Your task to perform on an android device: find photos in the google photos app Image 0: 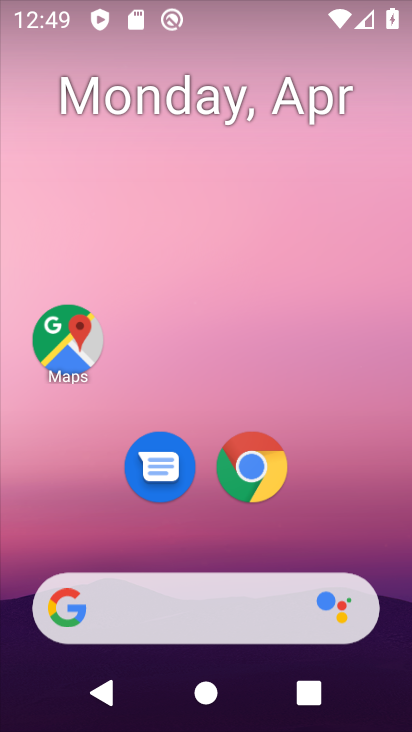
Step 0: drag from (203, 479) to (253, 114)
Your task to perform on an android device: find photos in the google photos app Image 1: 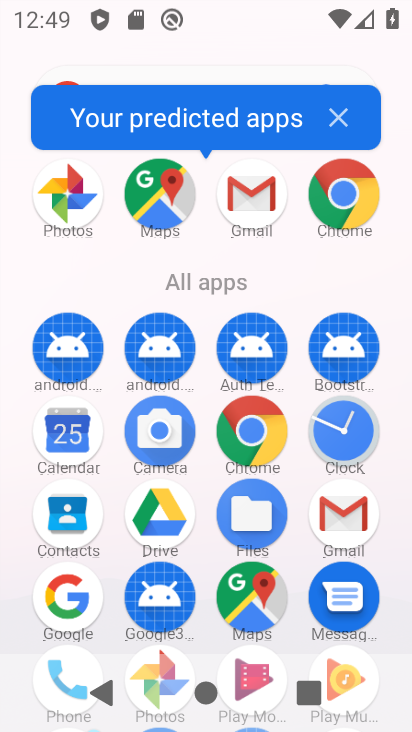
Step 1: click (64, 191)
Your task to perform on an android device: find photos in the google photos app Image 2: 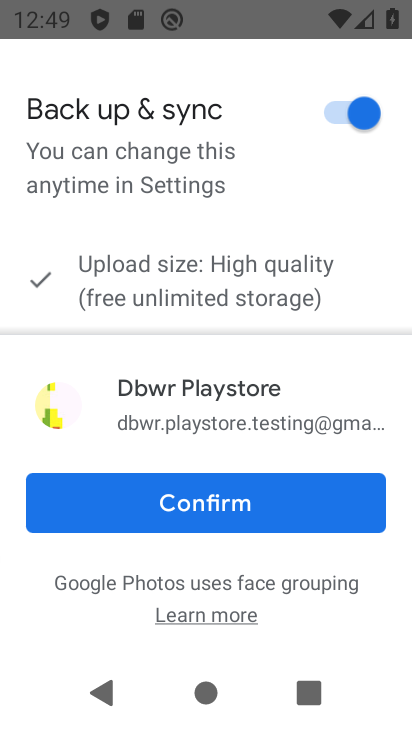
Step 2: click (213, 497)
Your task to perform on an android device: find photos in the google photos app Image 3: 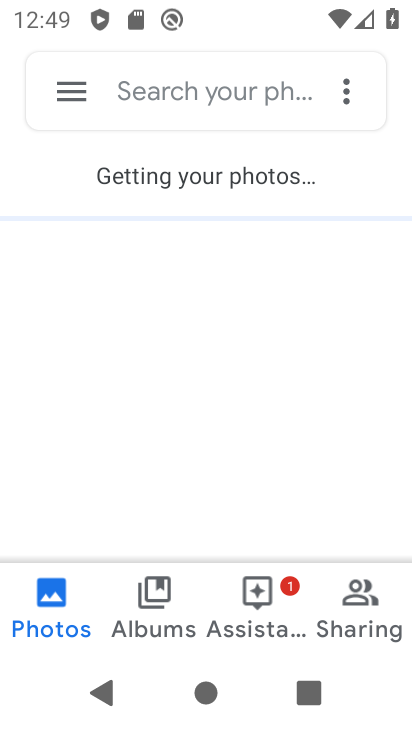
Step 3: click (180, 100)
Your task to perform on an android device: find photos in the google photos app Image 4: 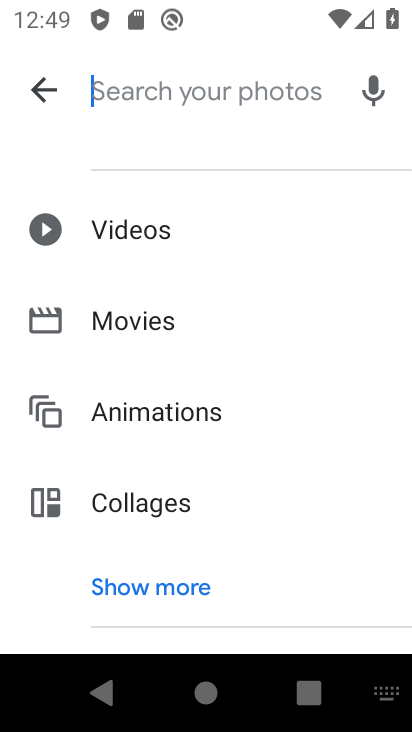
Step 4: click (133, 506)
Your task to perform on an android device: find photos in the google photos app Image 5: 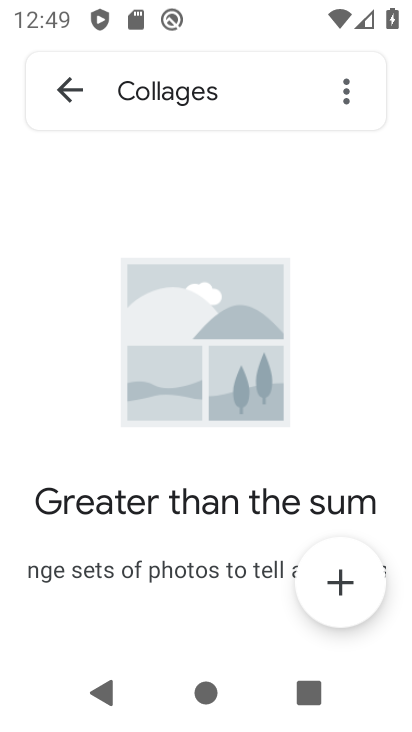
Step 5: press back button
Your task to perform on an android device: find photos in the google photos app Image 6: 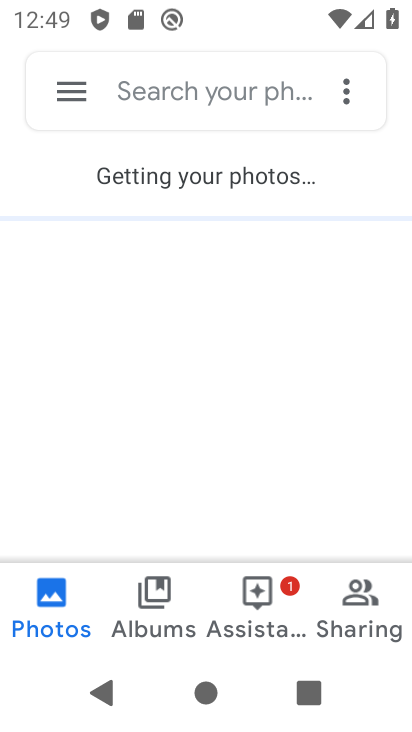
Step 6: click (176, 620)
Your task to perform on an android device: find photos in the google photos app Image 7: 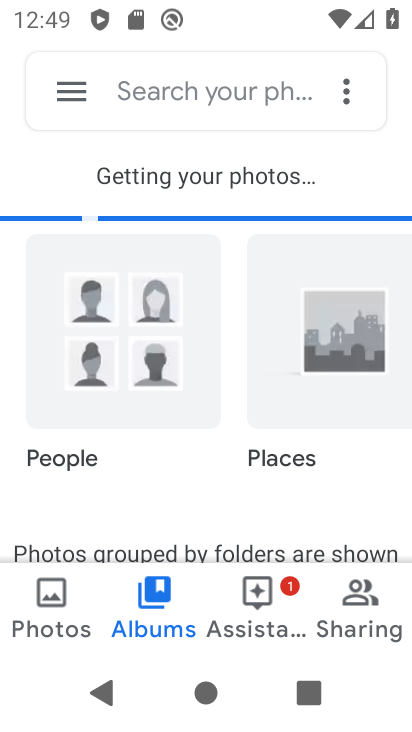
Step 7: task complete